Your task to perform on an android device: open sync settings in chrome Image 0: 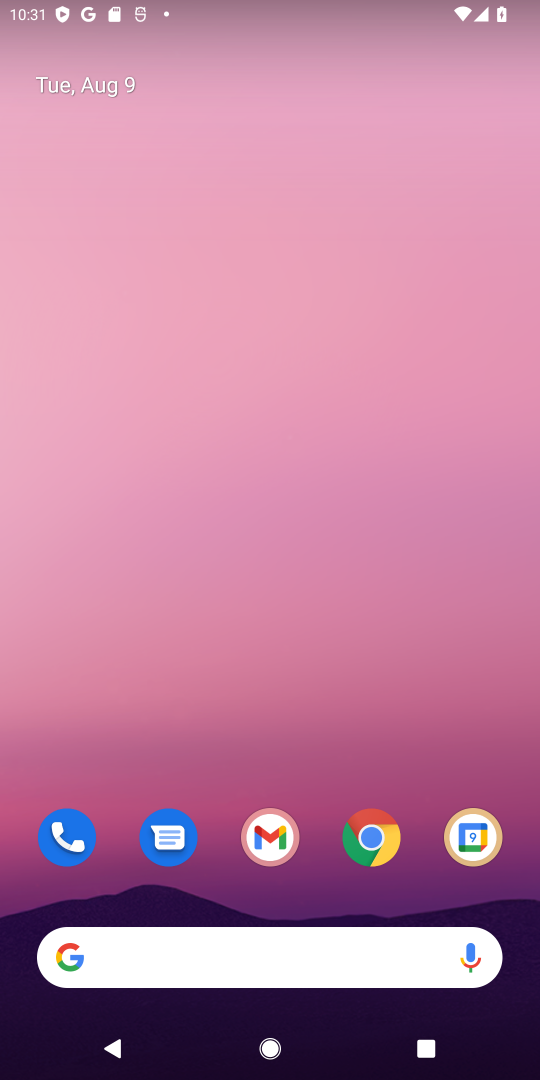
Step 0: click (375, 834)
Your task to perform on an android device: open sync settings in chrome Image 1: 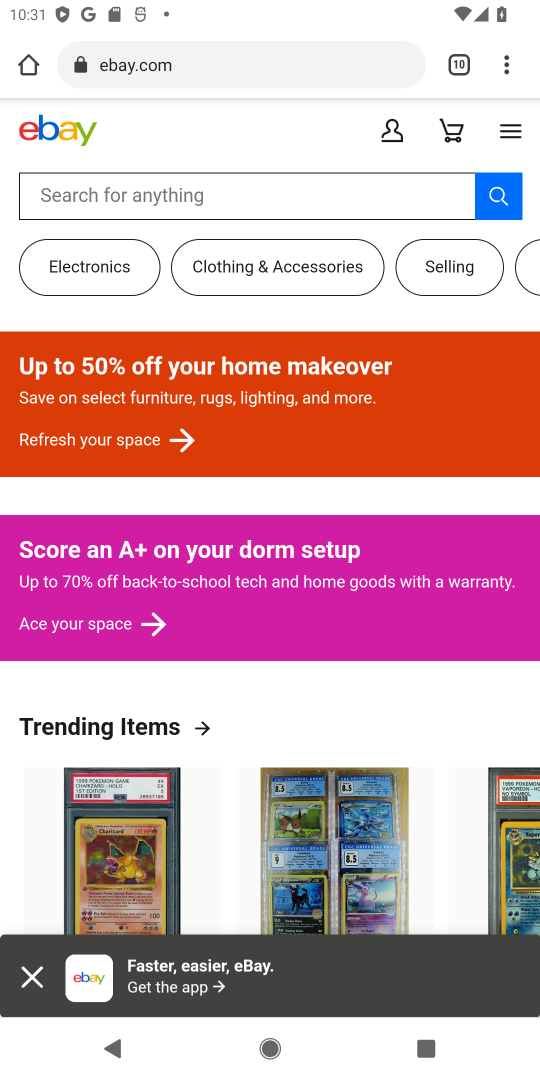
Step 1: drag from (508, 70) to (316, 839)
Your task to perform on an android device: open sync settings in chrome Image 2: 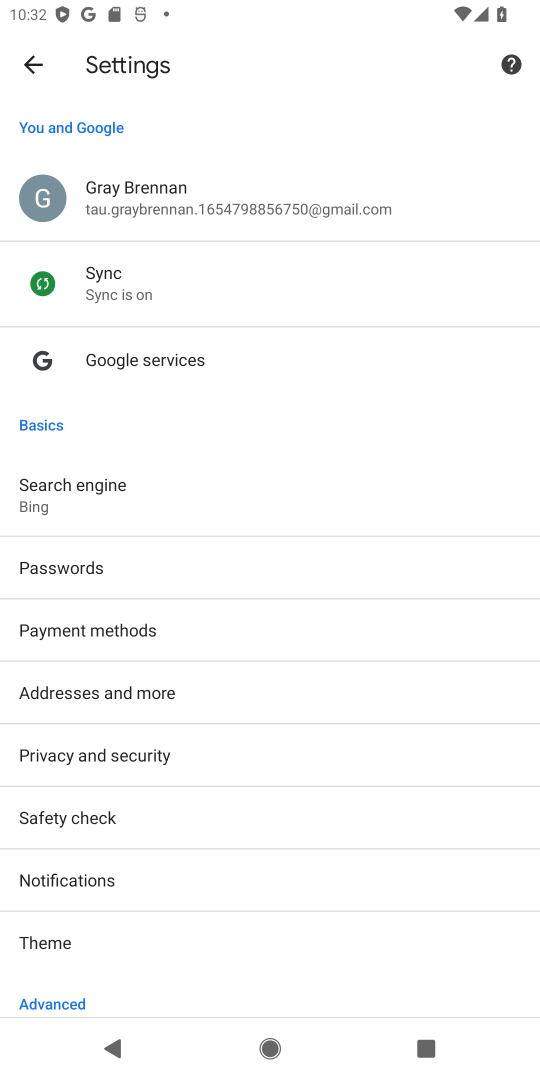
Step 2: drag from (106, 946) to (129, 469)
Your task to perform on an android device: open sync settings in chrome Image 3: 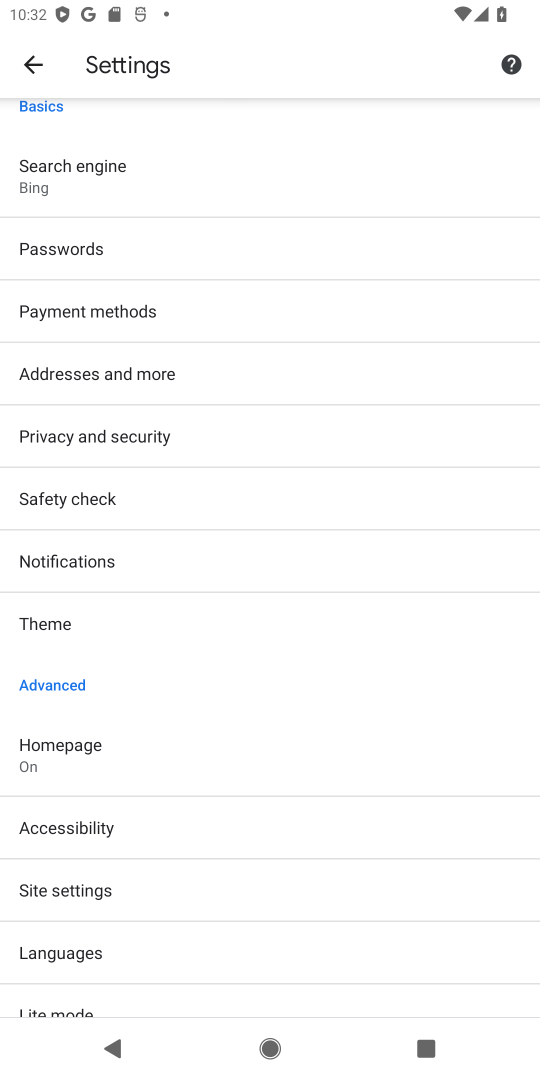
Step 3: click (73, 887)
Your task to perform on an android device: open sync settings in chrome Image 4: 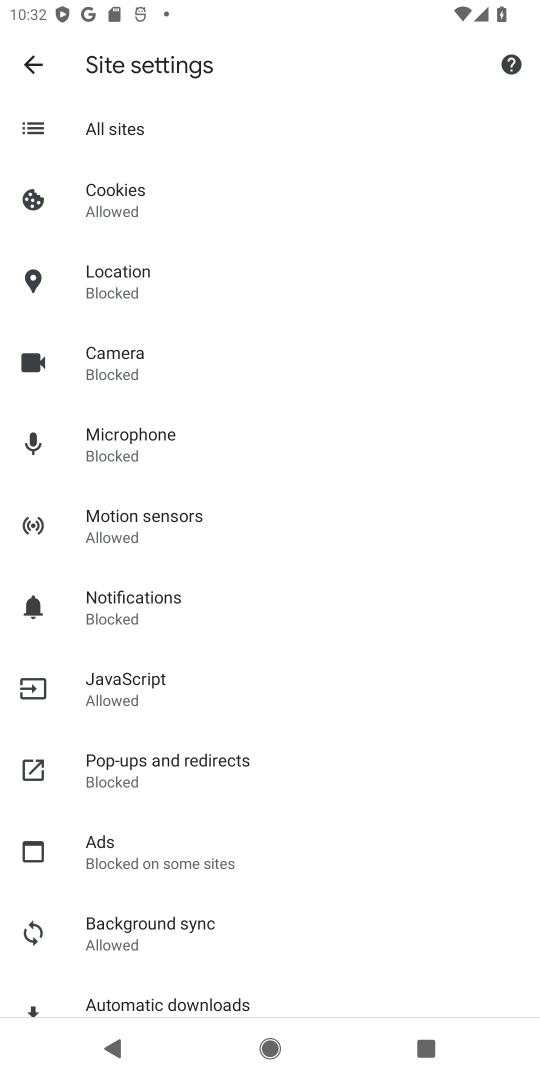
Step 4: click (148, 927)
Your task to perform on an android device: open sync settings in chrome Image 5: 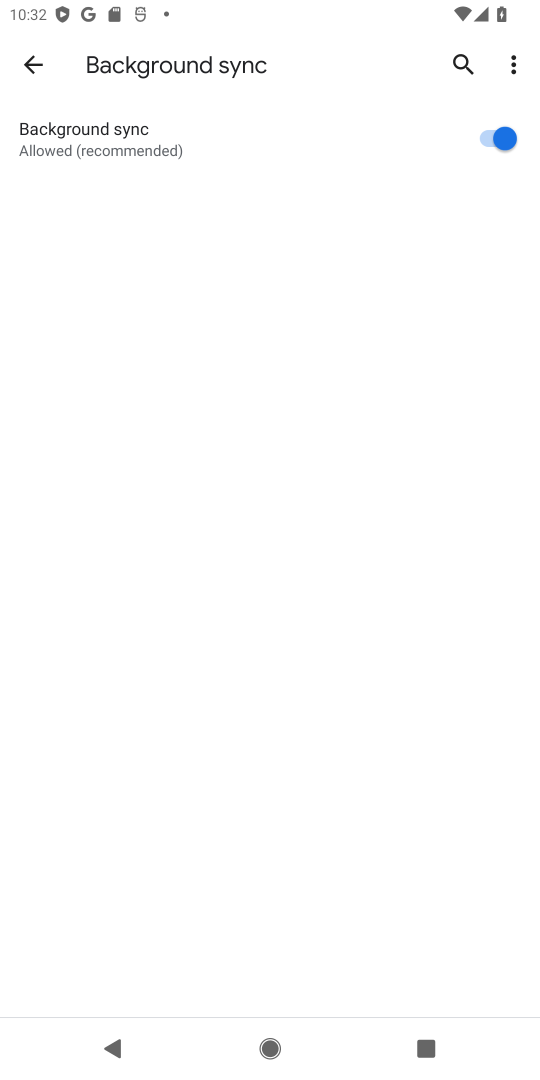
Step 5: task complete